Your task to perform on an android device: Open Android settings Image 0: 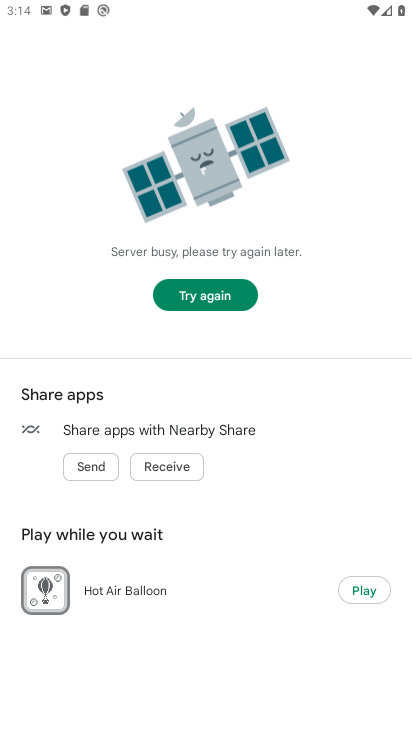
Step 0: press home button
Your task to perform on an android device: Open Android settings Image 1: 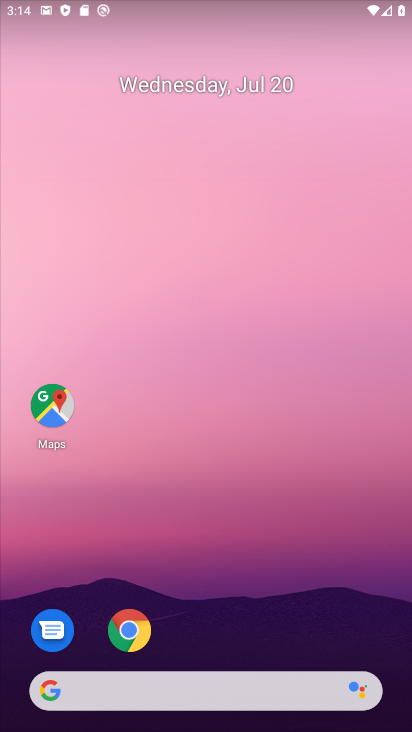
Step 1: drag from (185, 623) to (267, 56)
Your task to perform on an android device: Open Android settings Image 2: 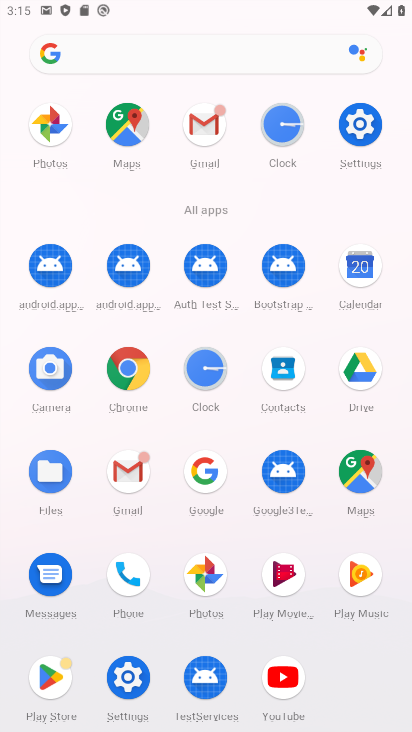
Step 2: click (357, 128)
Your task to perform on an android device: Open Android settings Image 3: 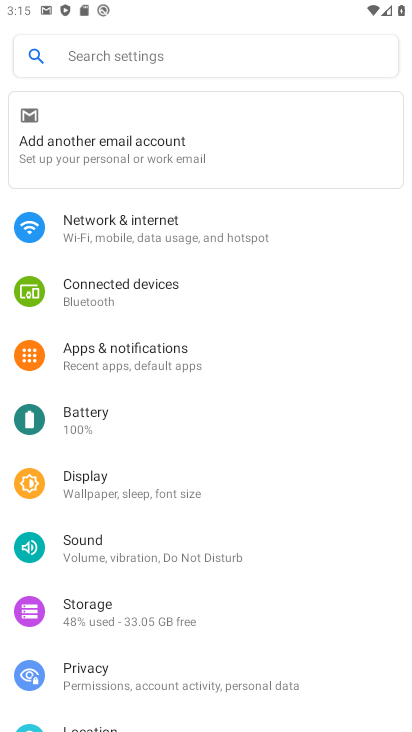
Step 3: task complete